Your task to perform on an android device: What's on my calendar today? Image 0: 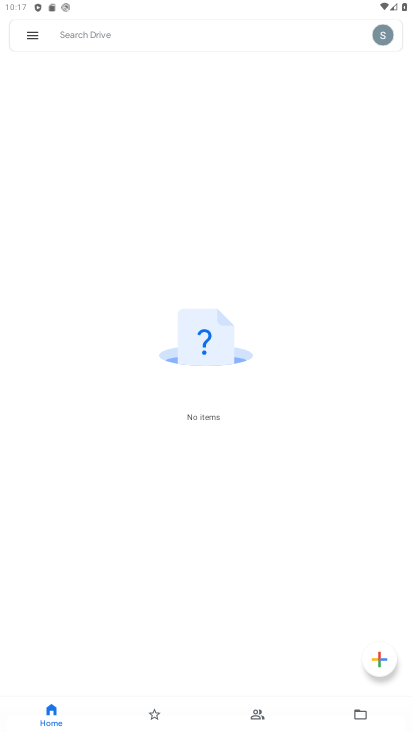
Step 0: press home button
Your task to perform on an android device: What's on my calendar today? Image 1: 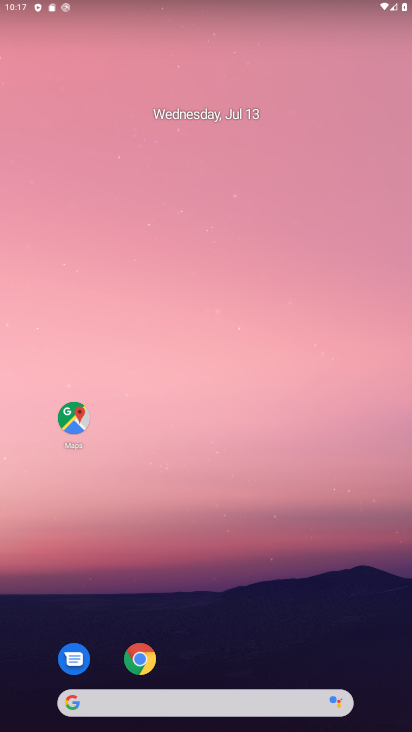
Step 1: drag from (350, 593) to (346, 149)
Your task to perform on an android device: What's on my calendar today? Image 2: 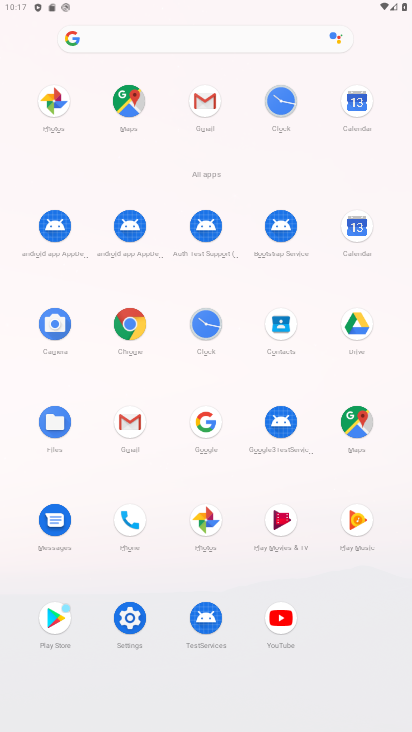
Step 2: click (360, 233)
Your task to perform on an android device: What's on my calendar today? Image 3: 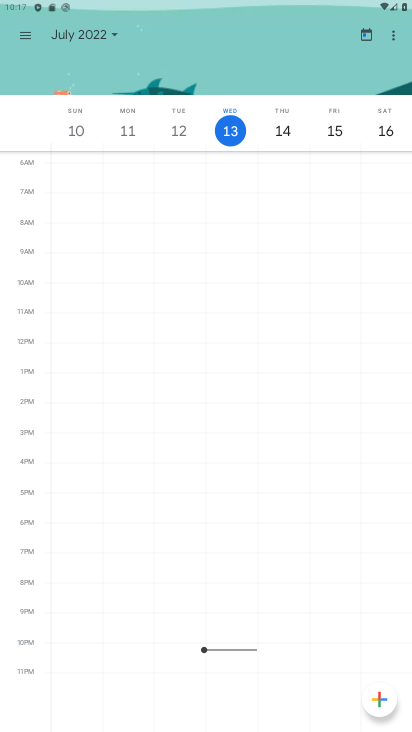
Step 3: task complete